Your task to perform on an android device: open a bookmark in the chrome app Image 0: 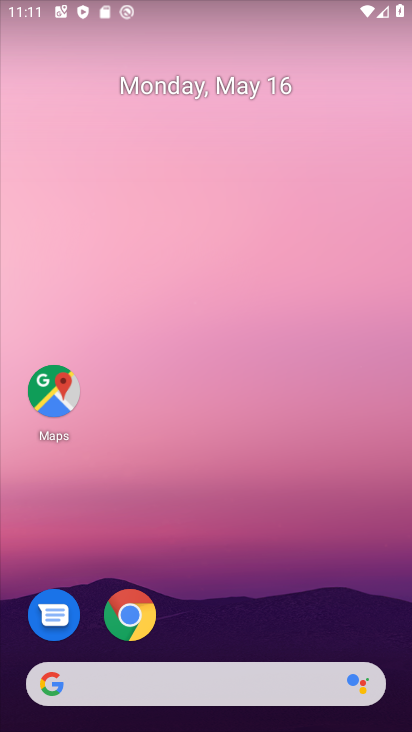
Step 0: click (129, 614)
Your task to perform on an android device: open a bookmark in the chrome app Image 1: 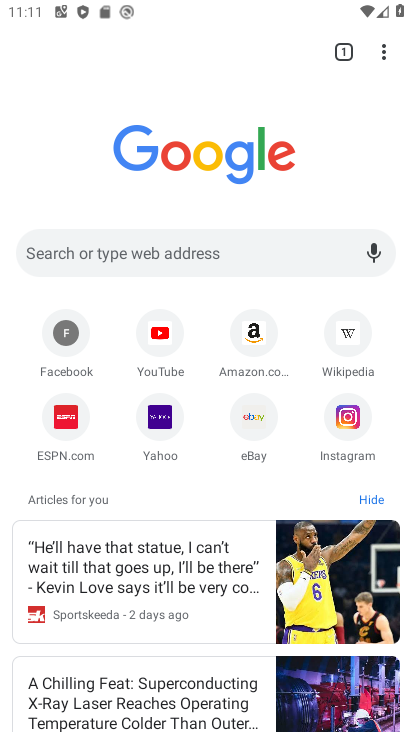
Step 1: click (384, 58)
Your task to perform on an android device: open a bookmark in the chrome app Image 2: 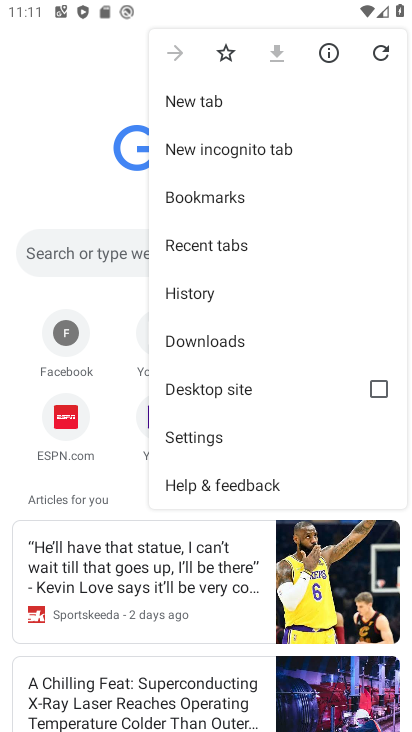
Step 2: click (214, 197)
Your task to perform on an android device: open a bookmark in the chrome app Image 3: 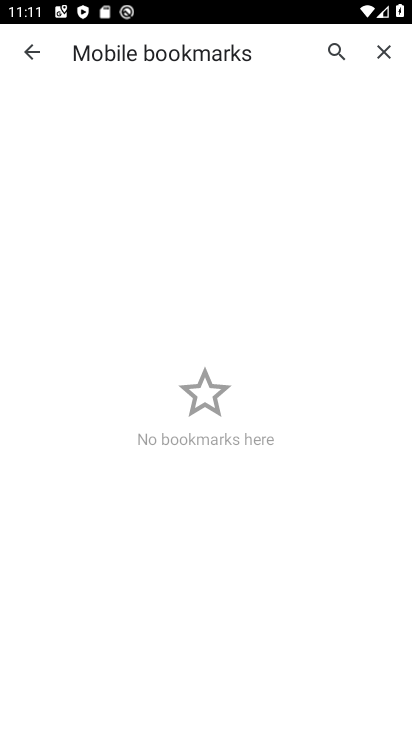
Step 3: task complete